Your task to perform on an android device: turn on wifi Image 0: 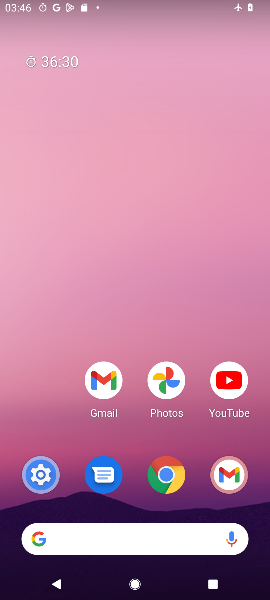
Step 0: press home button
Your task to perform on an android device: turn on wifi Image 1: 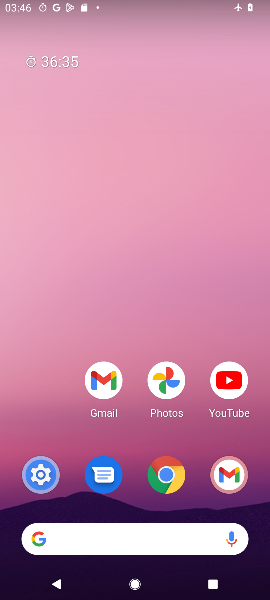
Step 1: drag from (64, 434) to (47, 169)
Your task to perform on an android device: turn on wifi Image 2: 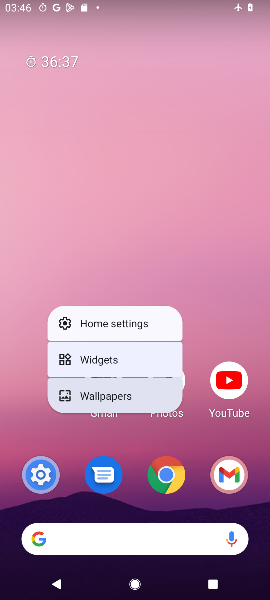
Step 2: click (27, 248)
Your task to perform on an android device: turn on wifi Image 3: 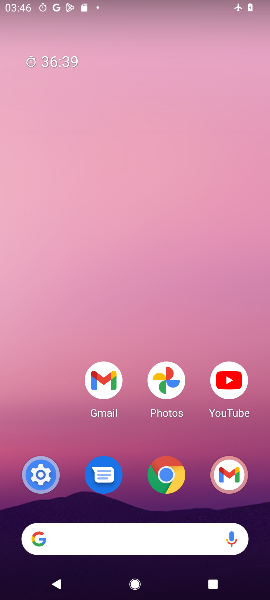
Step 3: drag from (47, 425) to (49, 147)
Your task to perform on an android device: turn on wifi Image 4: 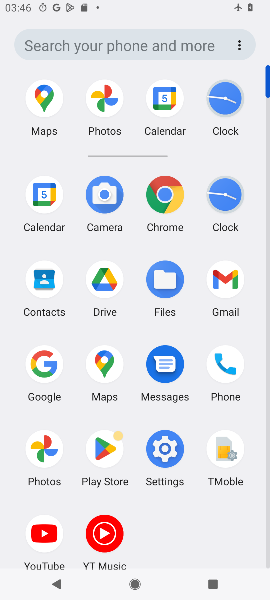
Step 4: click (166, 456)
Your task to perform on an android device: turn on wifi Image 5: 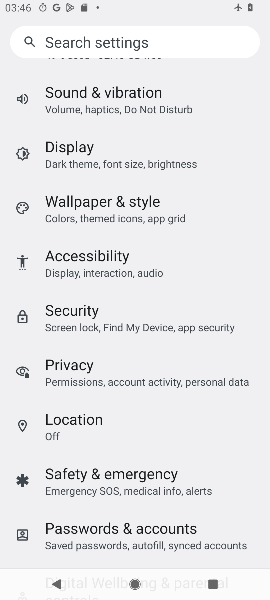
Step 5: drag from (212, 379) to (220, 495)
Your task to perform on an android device: turn on wifi Image 6: 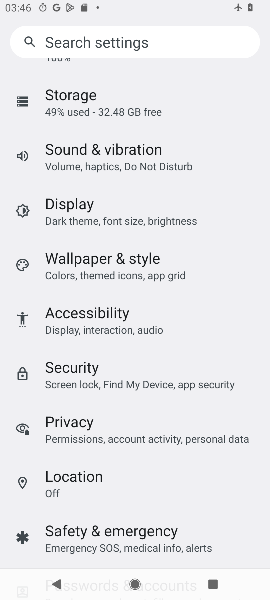
Step 6: drag from (233, 268) to (233, 328)
Your task to perform on an android device: turn on wifi Image 7: 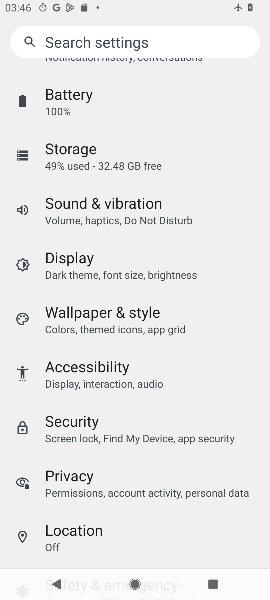
Step 7: drag from (227, 304) to (227, 360)
Your task to perform on an android device: turn on wifi Image 8: 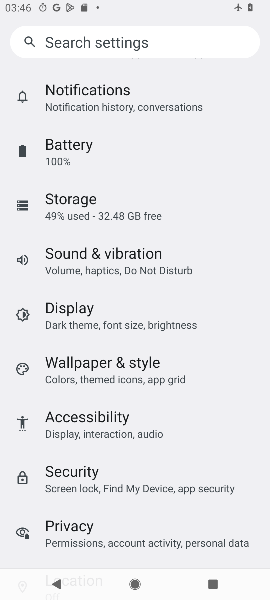
Step 8: drag from (236, 266) to (235, 325)
Your task to perform on an android device: turn on wifi Image 9: 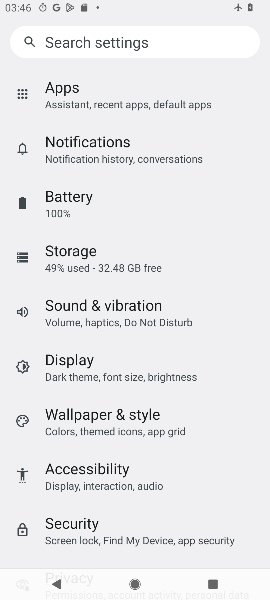
Step 9: drag from (228, 250) to (228, 338)
Your task to perform on an android device: turn on wifi Image 10: 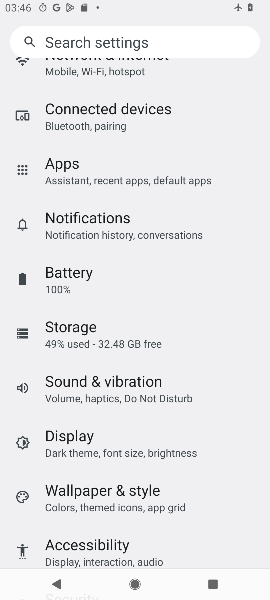
Step 10: drag from (230, 262) to (231, 351)
Your task to perform on an android device: turn on wifi Image 11: 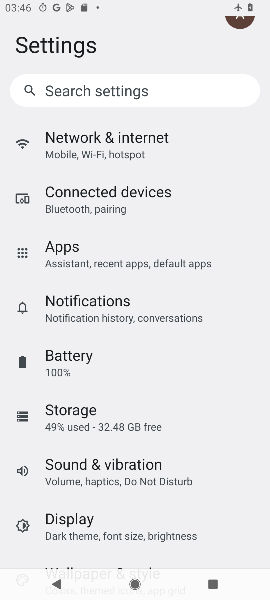
Step 11: drag from (230, 235) to (233, 356)
Your task to perform on an android device: turn on wifi Image 12: 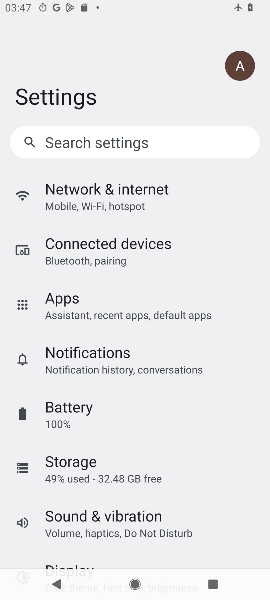
Step 12: click (179, 201)
Your task to perform on an android device: turn on wifi Image 13: 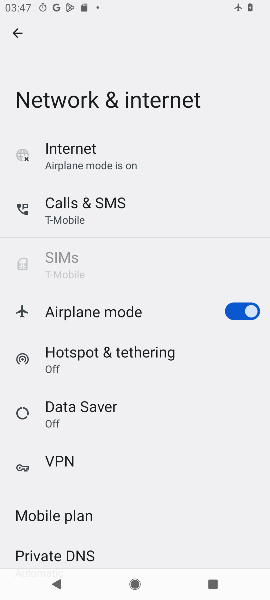
Step 13: click (84, 154)
Your task to perform on an android device: turn on wifi Image 14: 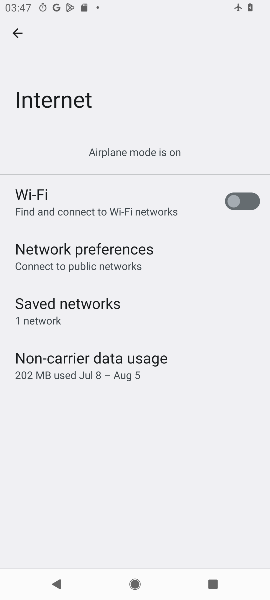
Step 14: click (225, 196)
Your task to perform on an android device: turn on wifi Image 15: 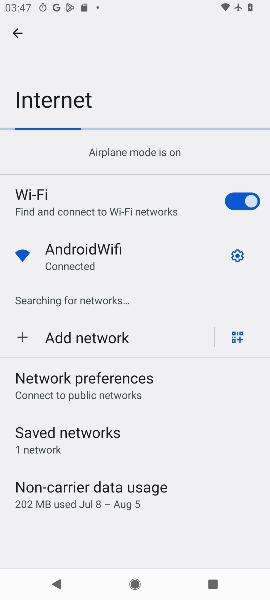
Step 15: task complete